Your task to perform on an android device: all mails in gmail Image 0: 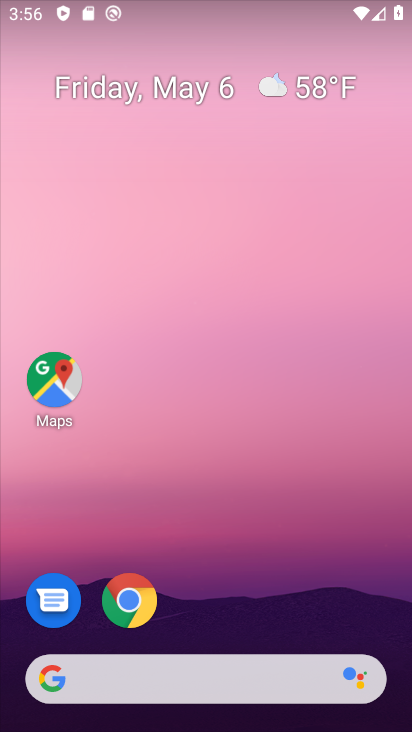
Step 0: drag from (235, 611) to (259, 12)
Your task to perform on an android device: all mails in gmail Image 1: 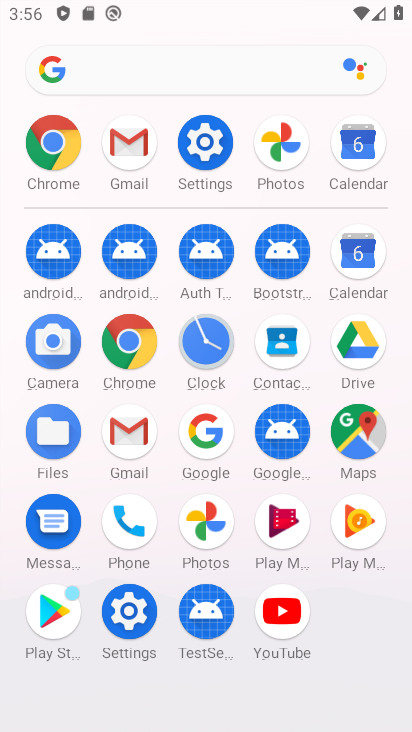
Step 1: click (108, 432)
Your task to perform on an android device: all mails in gmail Image 2: 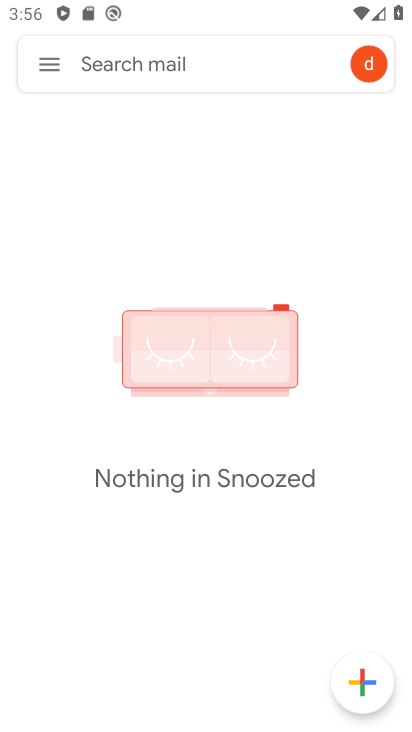
Step 2: click (66, 68)
Your task to perform on an android device: all mails in gmail Image 3: 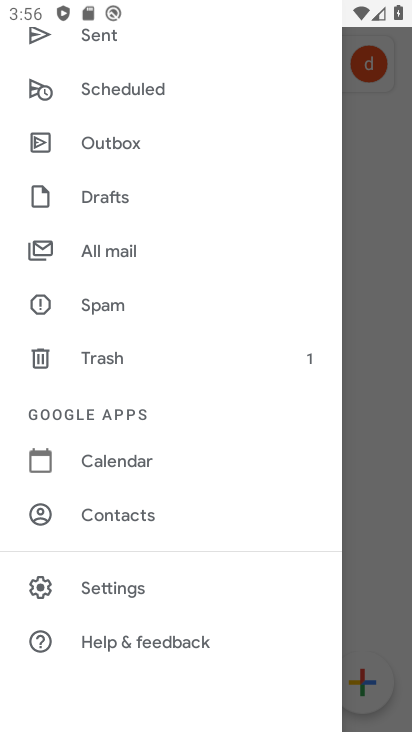
Step 3: click (128, 250)
Your task to perform on an android device: all mails in gmail Image 4: 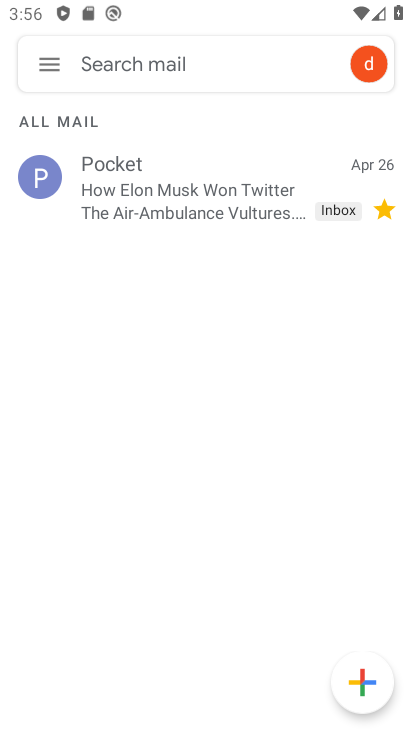
Step 4: task complete